Your task to perform on an android device: Look up the best gaming headphones on Best Buy Image 0: 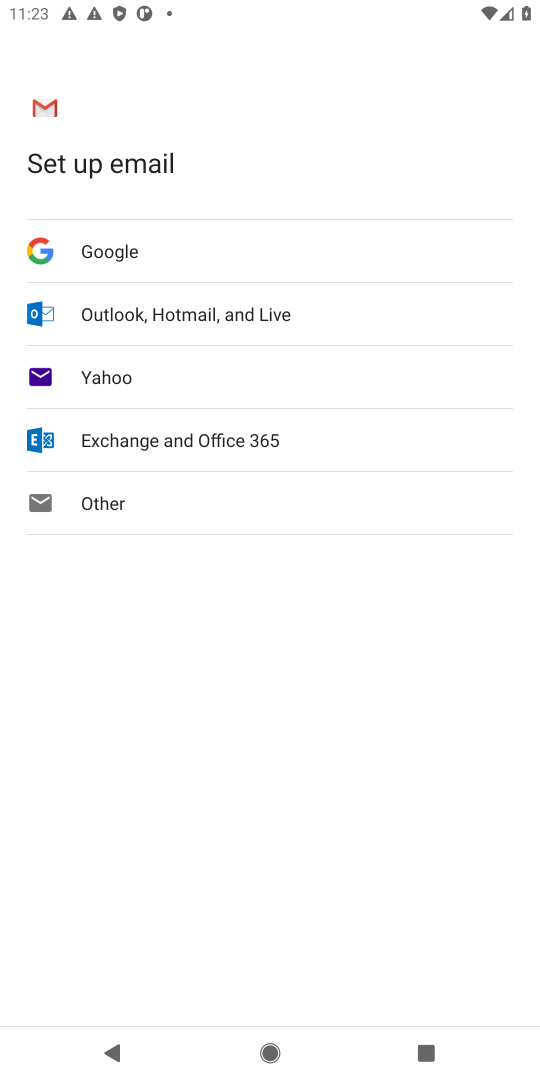
Step 0: press home button
Your task to perform on an android device: Look up the best gaming headphones on Best Buy Image 1: 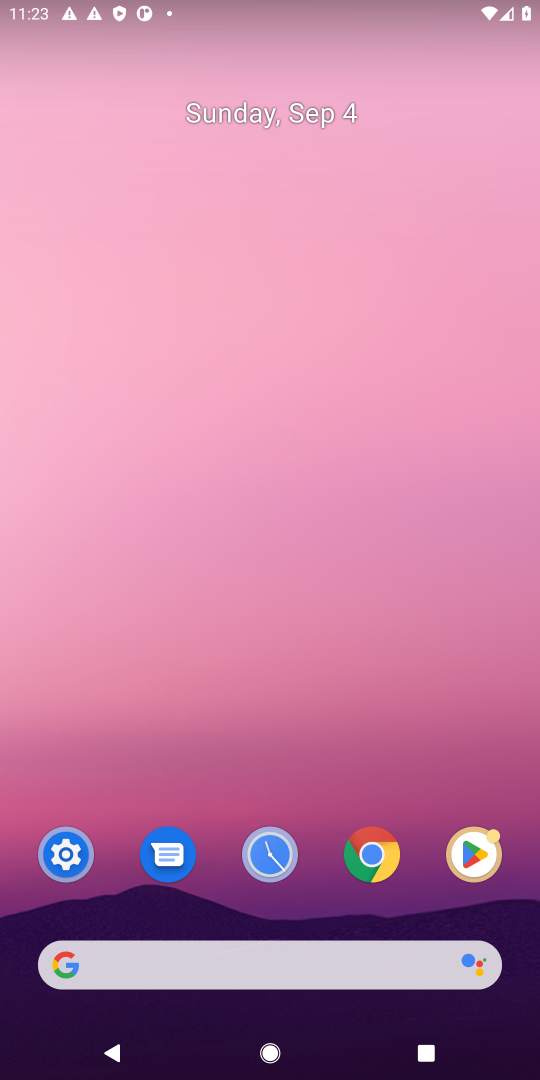
Step 1: click (362, 968)
Your task to perform on an android device: Look up the best gaming headphones on Best Buy Image 2: 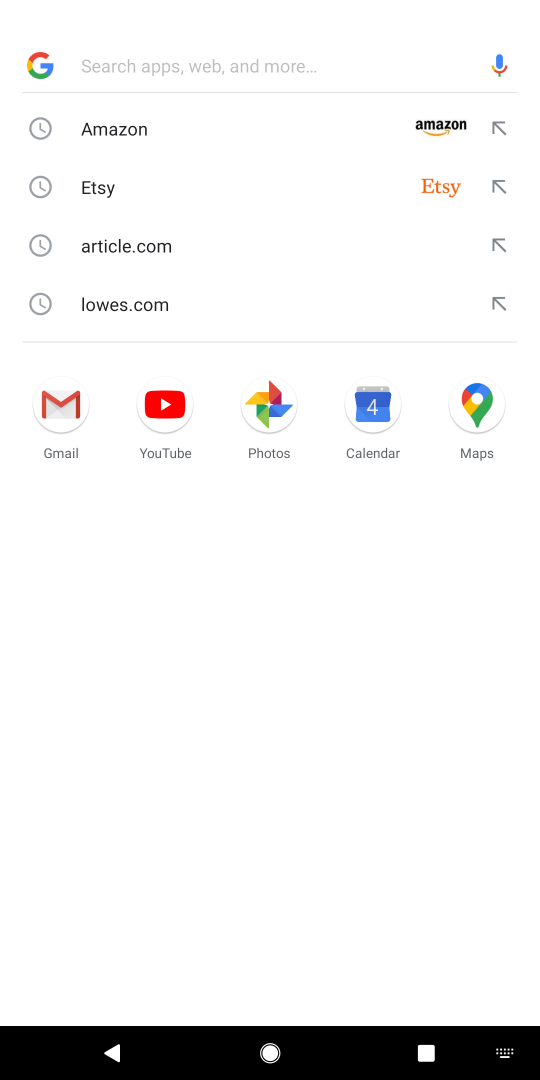
Step 2: press enter
Your task to perform on an android device: Look up the best gaming headphones on Best Buy Image 3: 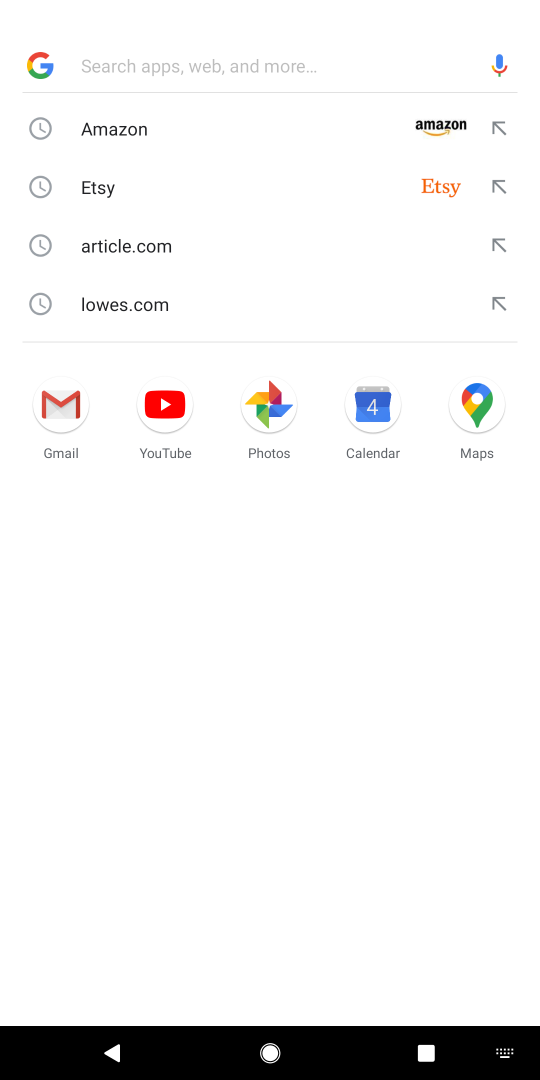
Step 3: type "best buy"
Your task to perform on an android device: Look up the best gaming headphones on Best Buy Image 4: 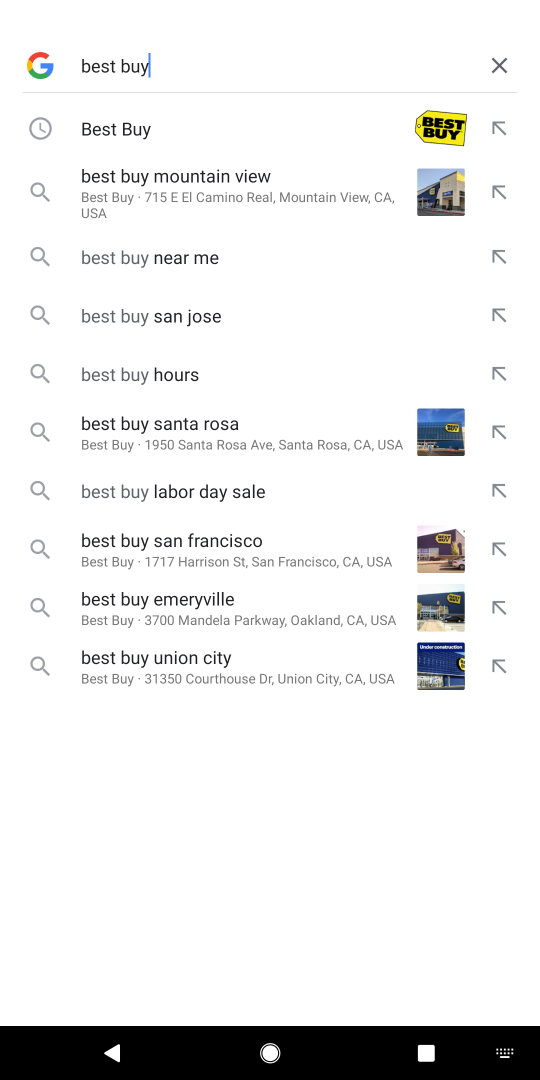
Step 4: click (141, 116)
Your task to perform on an android device: Look up the best gaming headphones on Best Buy Image 5: 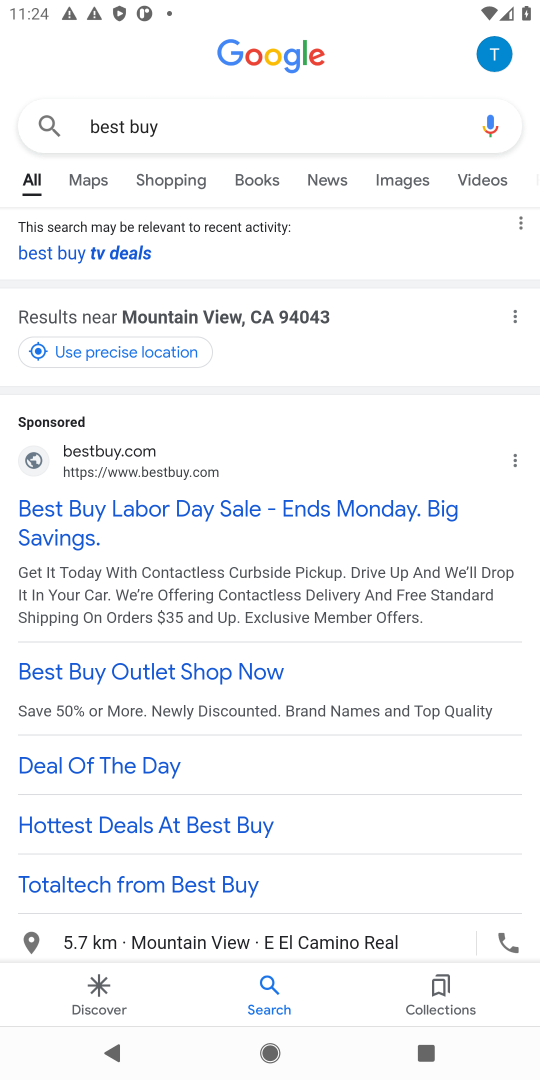
Step 5: click (200, 504)
Your task to perform on an android device: Look up the best gaming headphones on Best Buy Image 6: 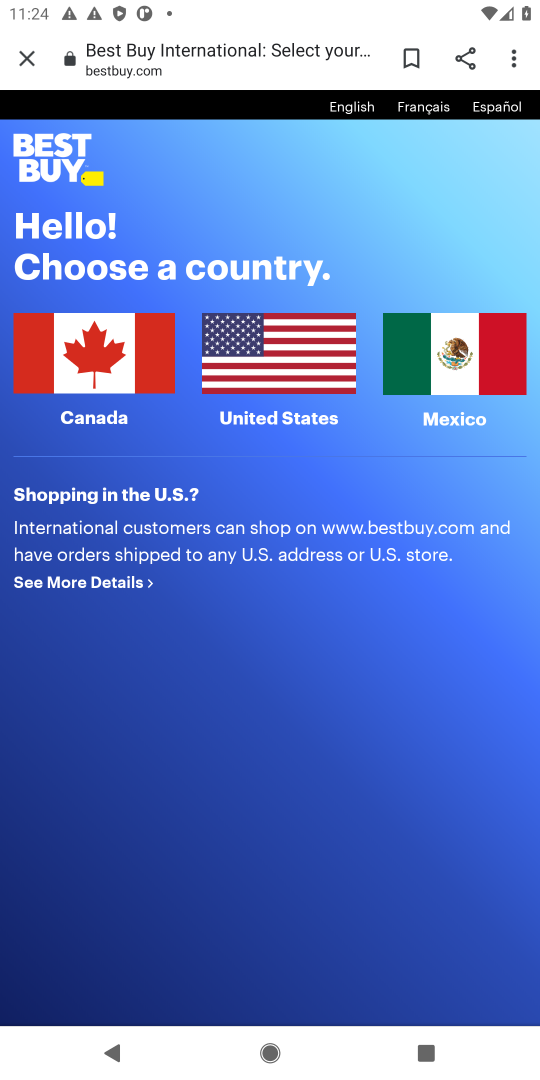
Step 6: click (80, 353)
Your task to perform on an android device: Look up the best gaming headphones on Best Buy Image 7: 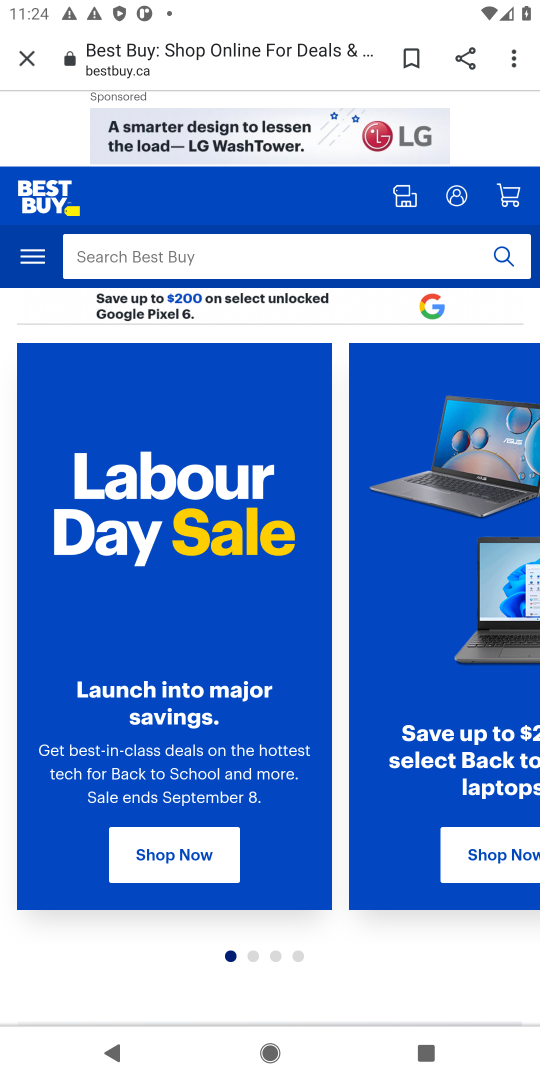
Step 7: click (198, 250)
Your task to perform on an android device: Look up the best gaming headphones on Best Buy Image 8: 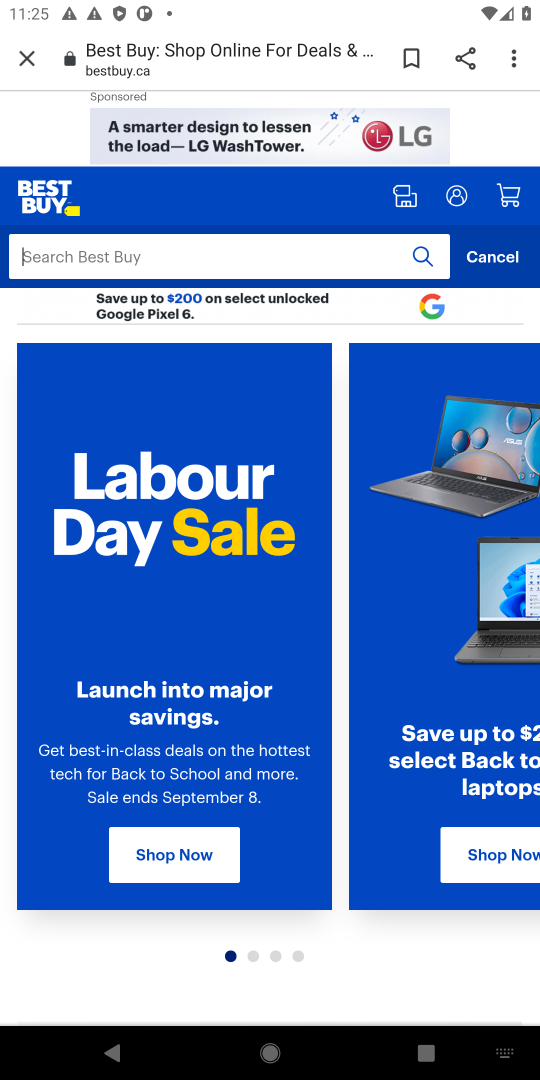
Step 8: press enter
Your task to perform on an android device: Look up the best gaming headphones on Best Buy Image 9: 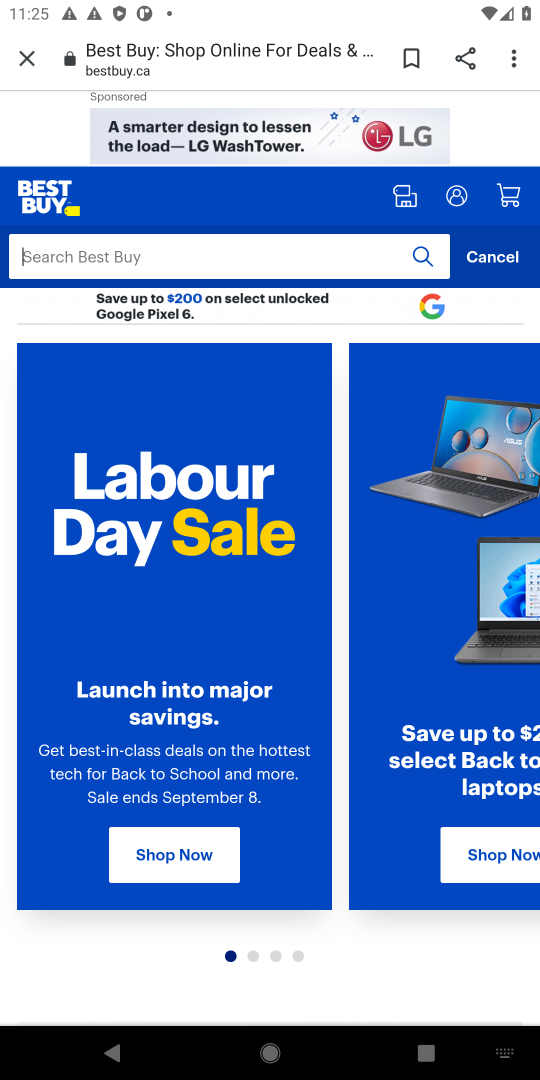
Step 9: type "best gaming headphones "
Your task to perform on an android device: Look up the best gaming headphones on Best Buy Image 10: 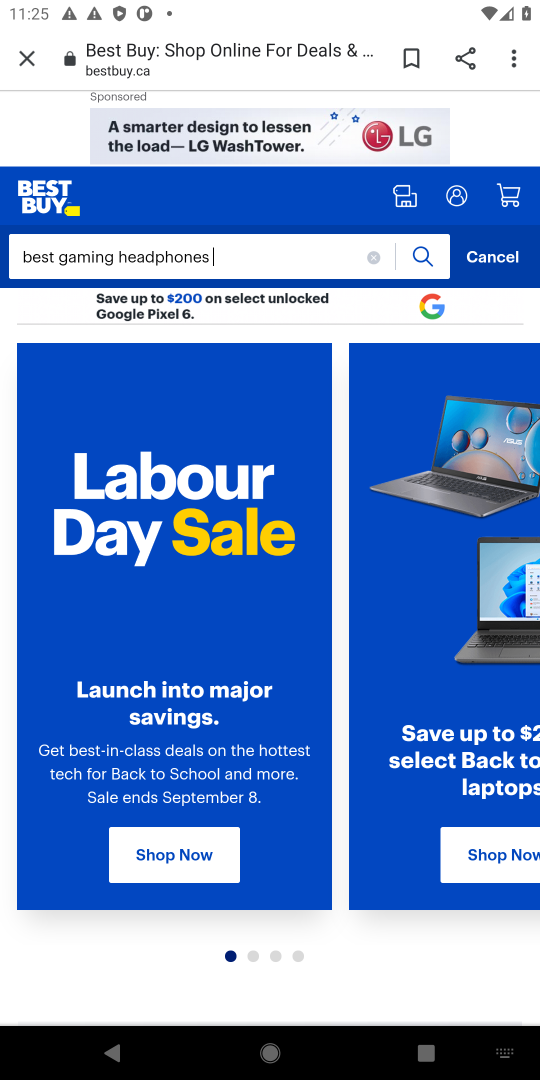
Step 10: click (421, 245)
Your task to perform on an android device: Look up the best gaming headphones on Best Buy Image 11: 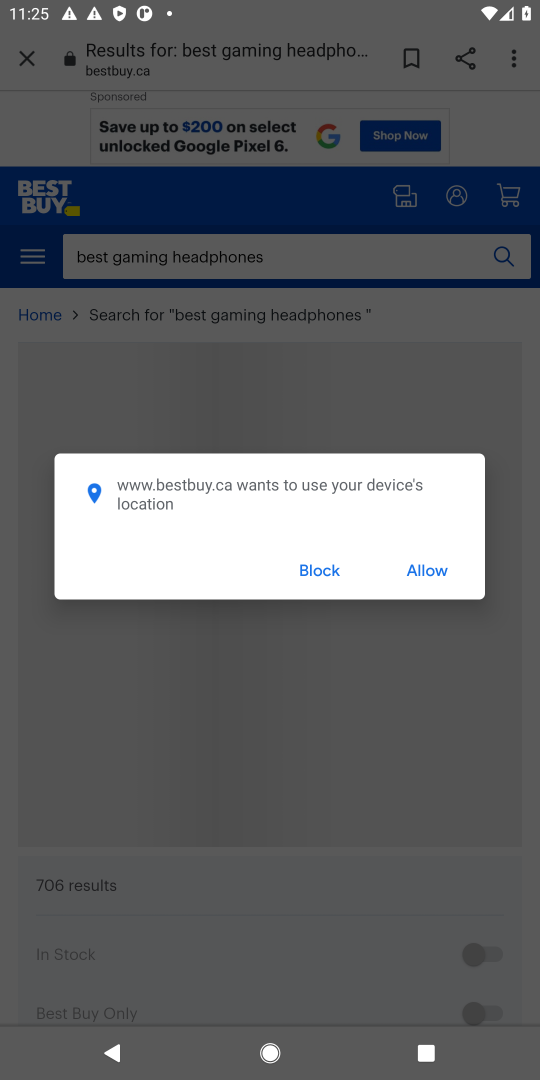
Step 11: click (334, 576)
Your task to perform on an android device: Look up the best gaming headphones on Best Buy Image 12: 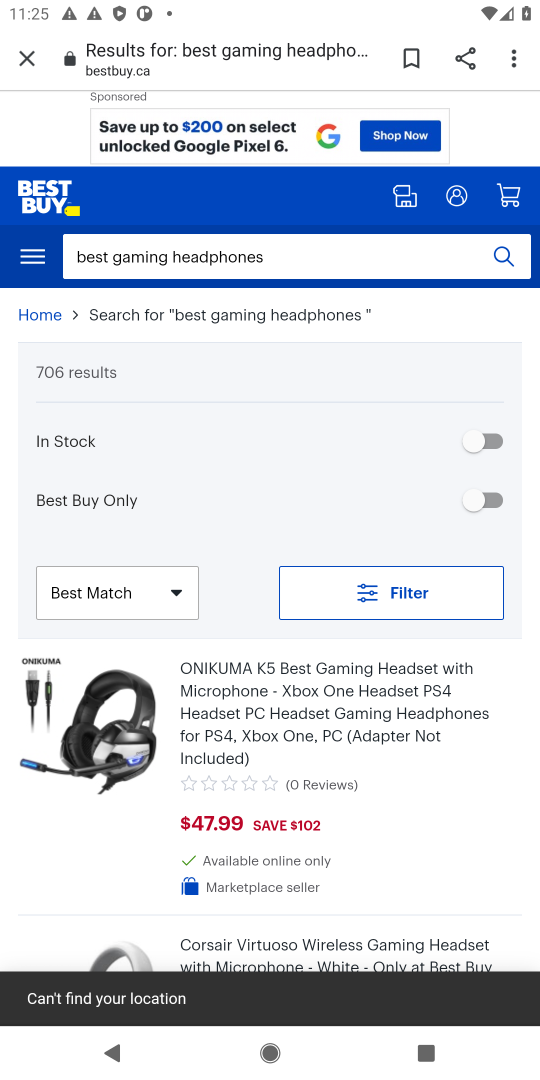
Step 12: task complete